Your task to perform on an android device: toggle sleep mode Image 0: 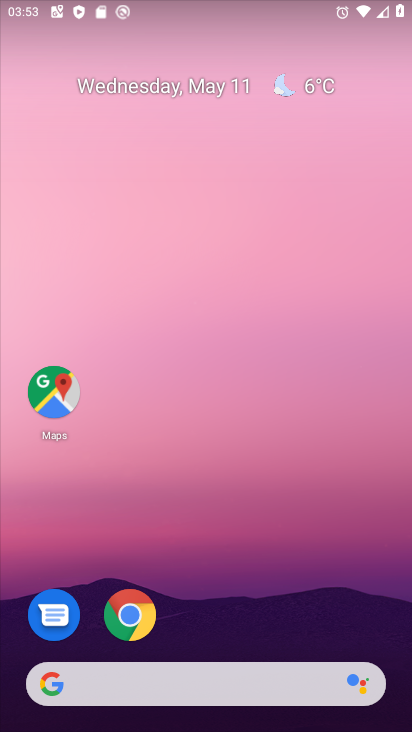
Step 0: drag from (365, 546) to (346, 148)
Your task to perform on an android device: toggle sleep mode Image 1: 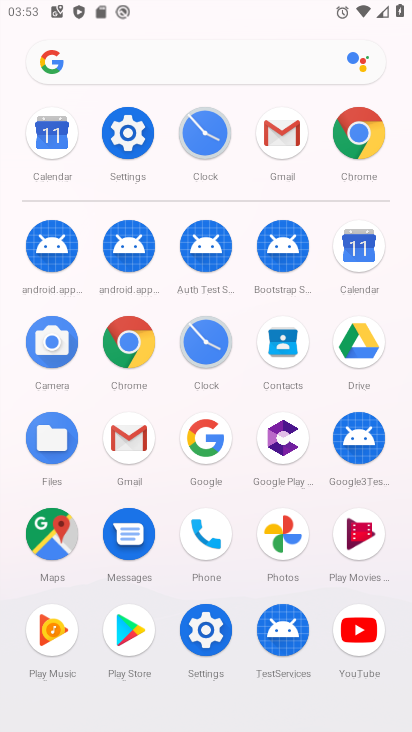
Step 1: click (131, 148)
Your task to perform on an android device: toggle sleep mode Image 2: 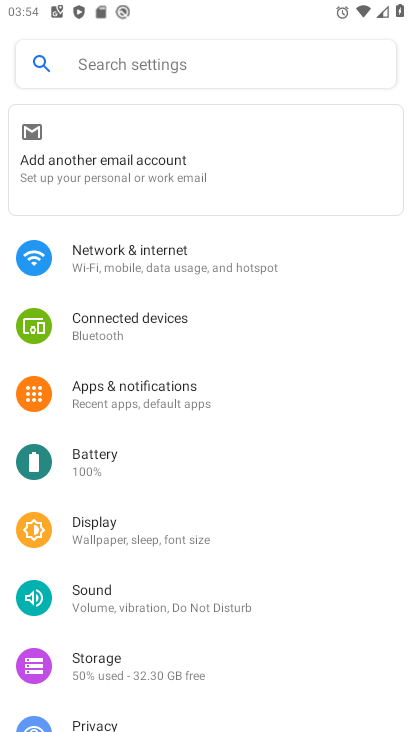
Step 2: click (125, 529)
Your task to perform on an android device: toggle sleep mode Image 3: 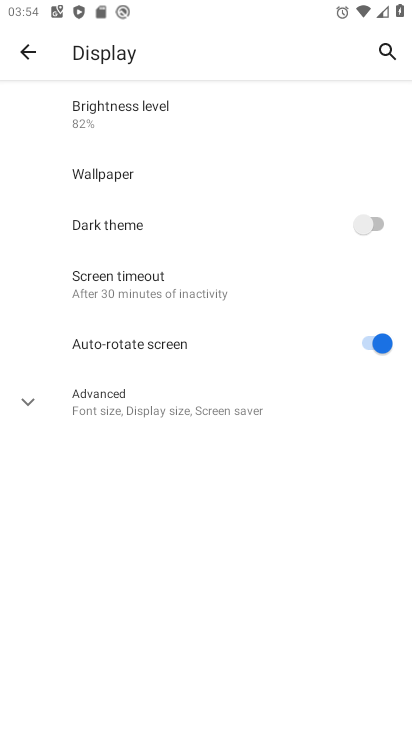
Step 3: click (114, 291)
Your task to perform on an android device: toggle sleep mode Image 4: 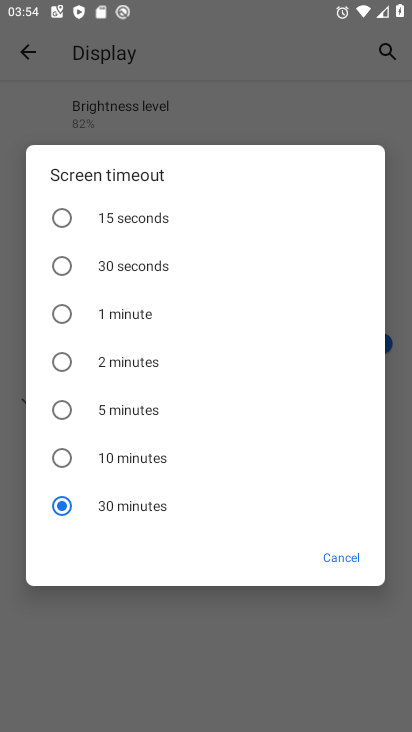
Step 4: click (102, 468)
Your task to perform on an android device: toggle sleep mode Image 5: 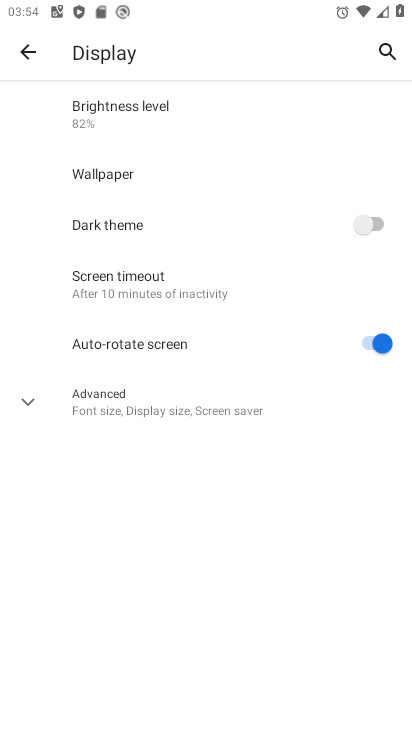
Step 5: task complete